Your task to perform on an android device: Search for "razer blackwidow" on target.com, select the first entry, add it to the cart, then select checkout. Image 0: 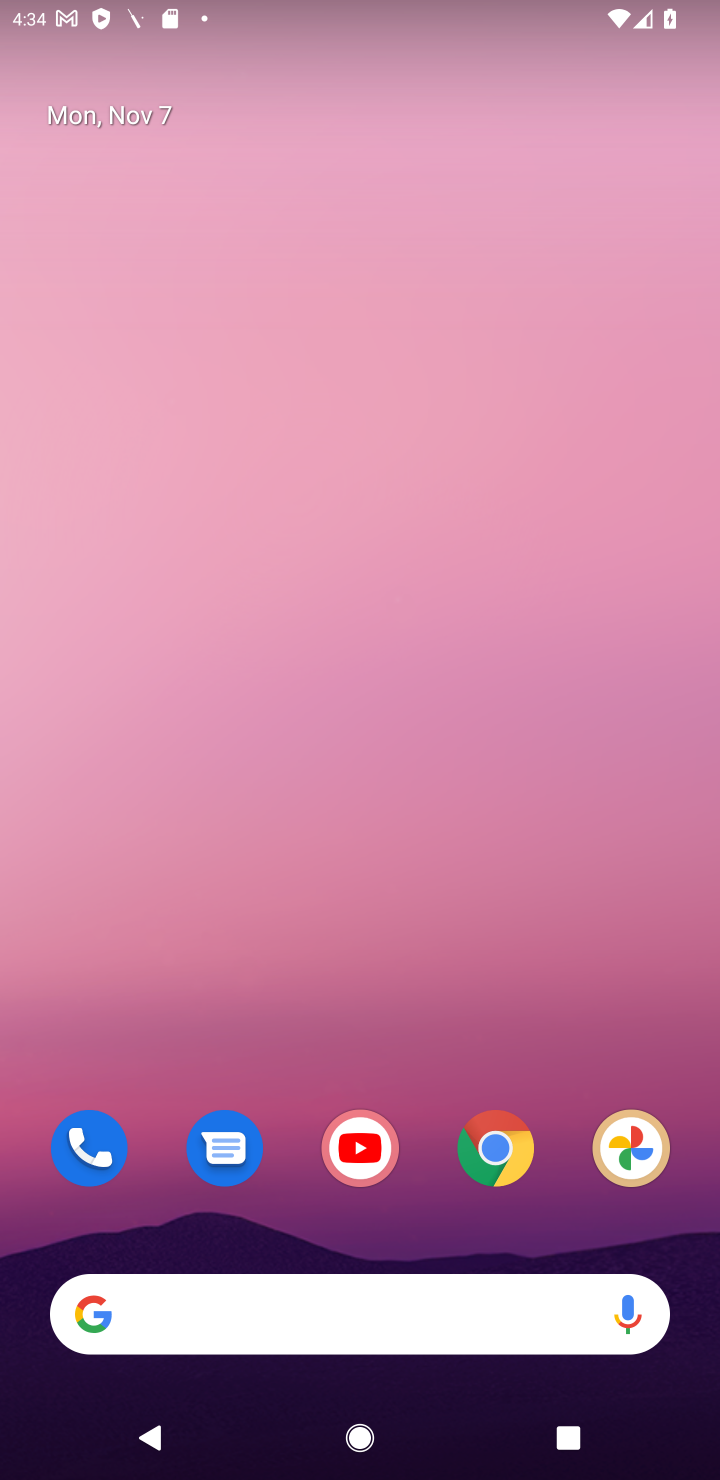
Step 0: click (492, 1140)
Your task to perform on an android device: Search for "razer blackwidow" on target.com, select the first entry, add it to the cart, then select checkout. Image 1: 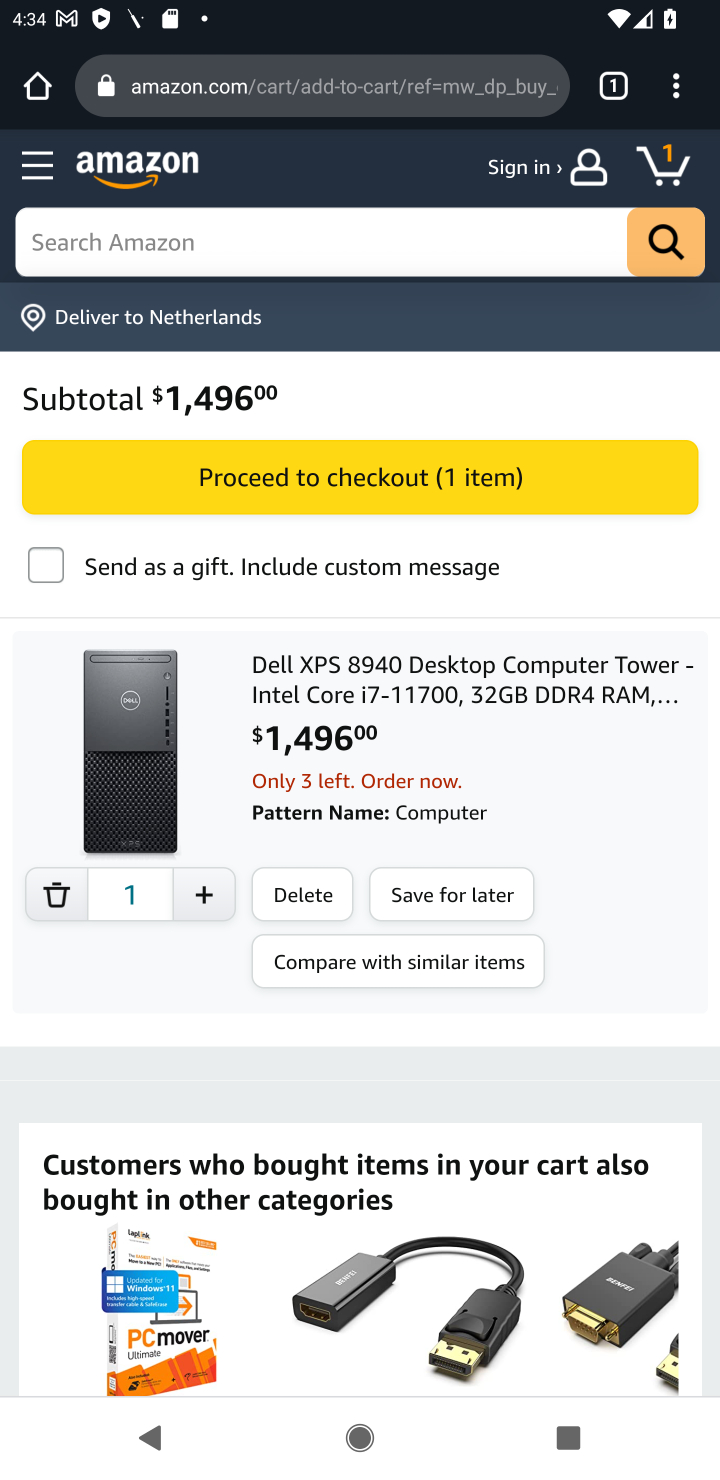
Step 1: click (345, 54)
Your task to perform on an android device: Search for "razer blackwidow" on target.com, select the first entry, add it to the cart, then select checkout. Image 2: 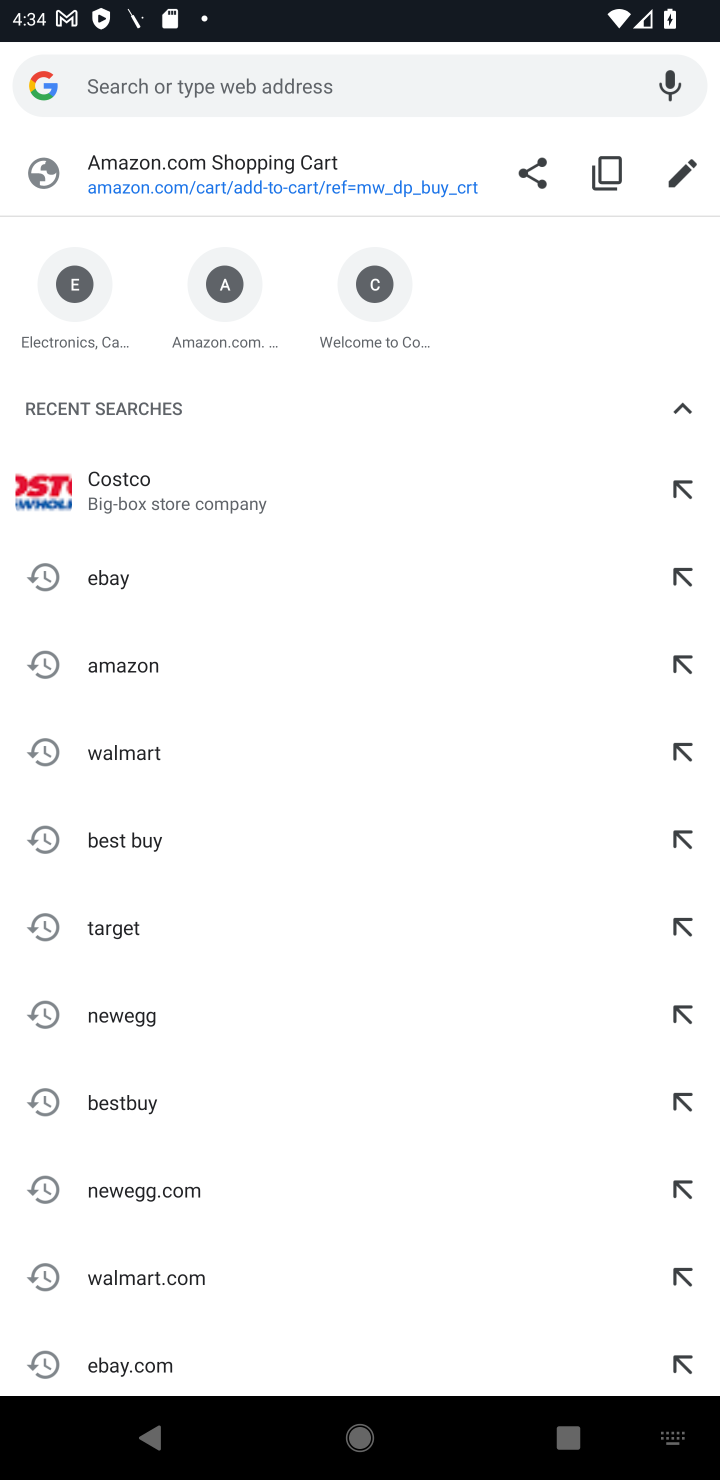
Step 2: type "target.com"
Your task to perform on an android device: Search for "razer blackwidow" on target.com, select the first entry, add it to the cart, then select checkout. Image 3: 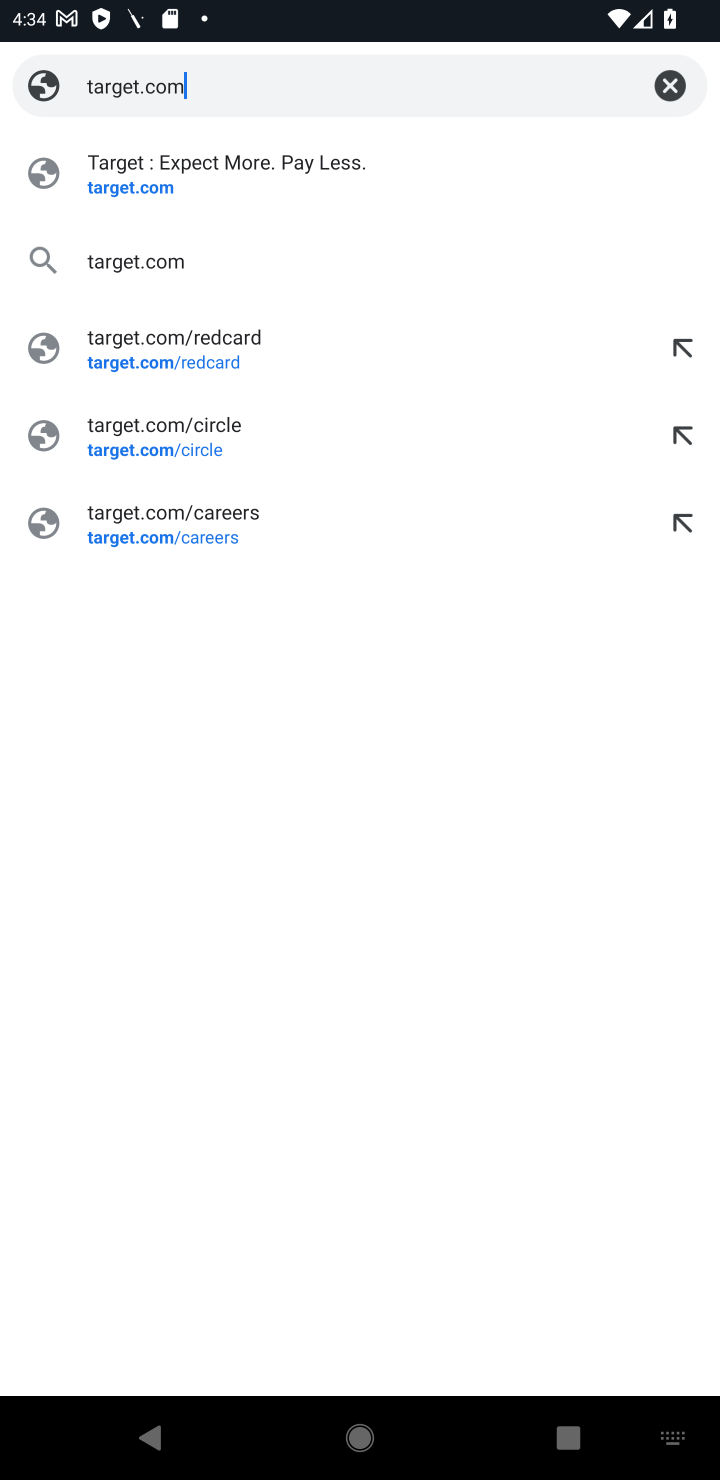
Step 3: click (119, 162)
Your task to perform on an android device: Search for "razer blackwidow" on target.com, select the first entry, add it to the cart, then select checkout. Image 4: 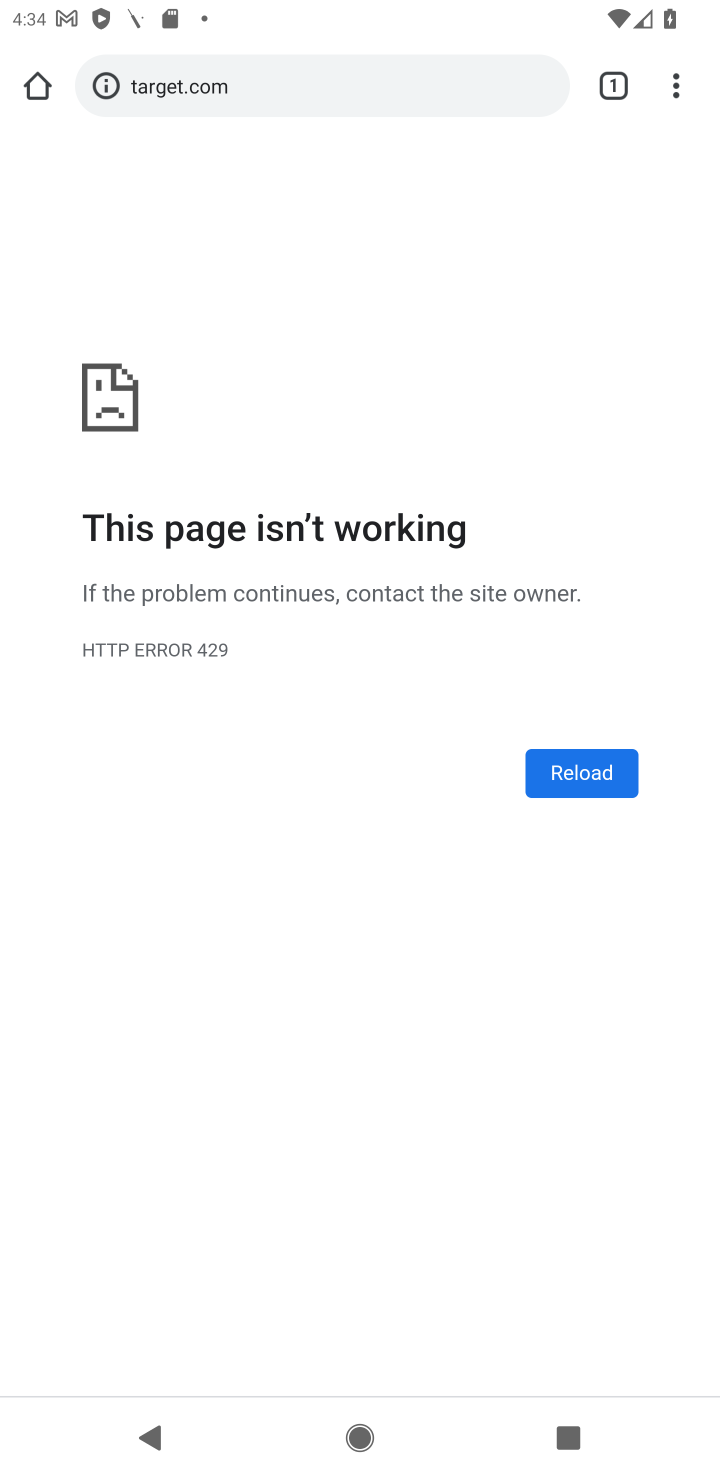
Step 4: press back button
Your task to perform on an android device: Search for "razer blackwidow" on target.com, select the first entry, add it to the cart, then select checkout. Image 5: 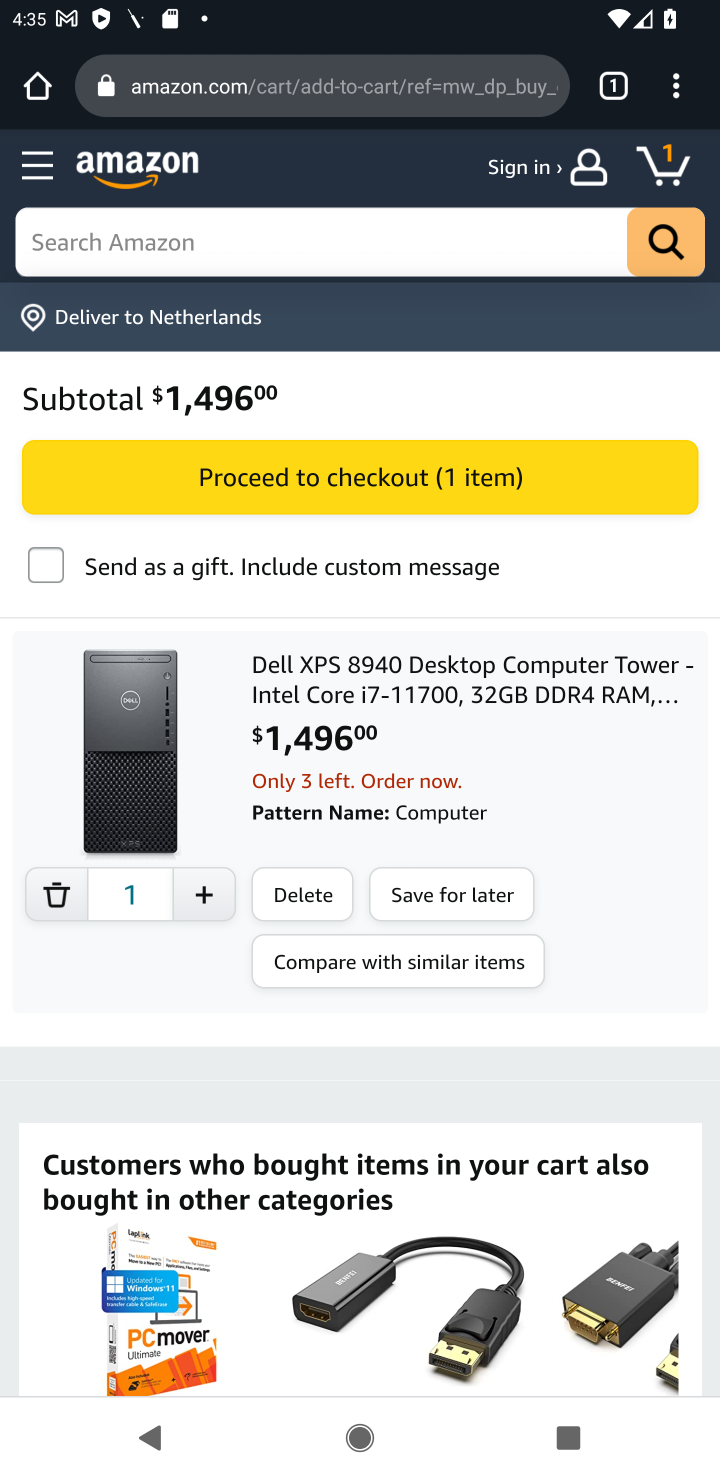
Step 5: click (369, 52)
Your task to perform on an android device: Search for "razer blackwidow" on target.com, select the first entry, add it to the cart, then select checkout. Image 6: 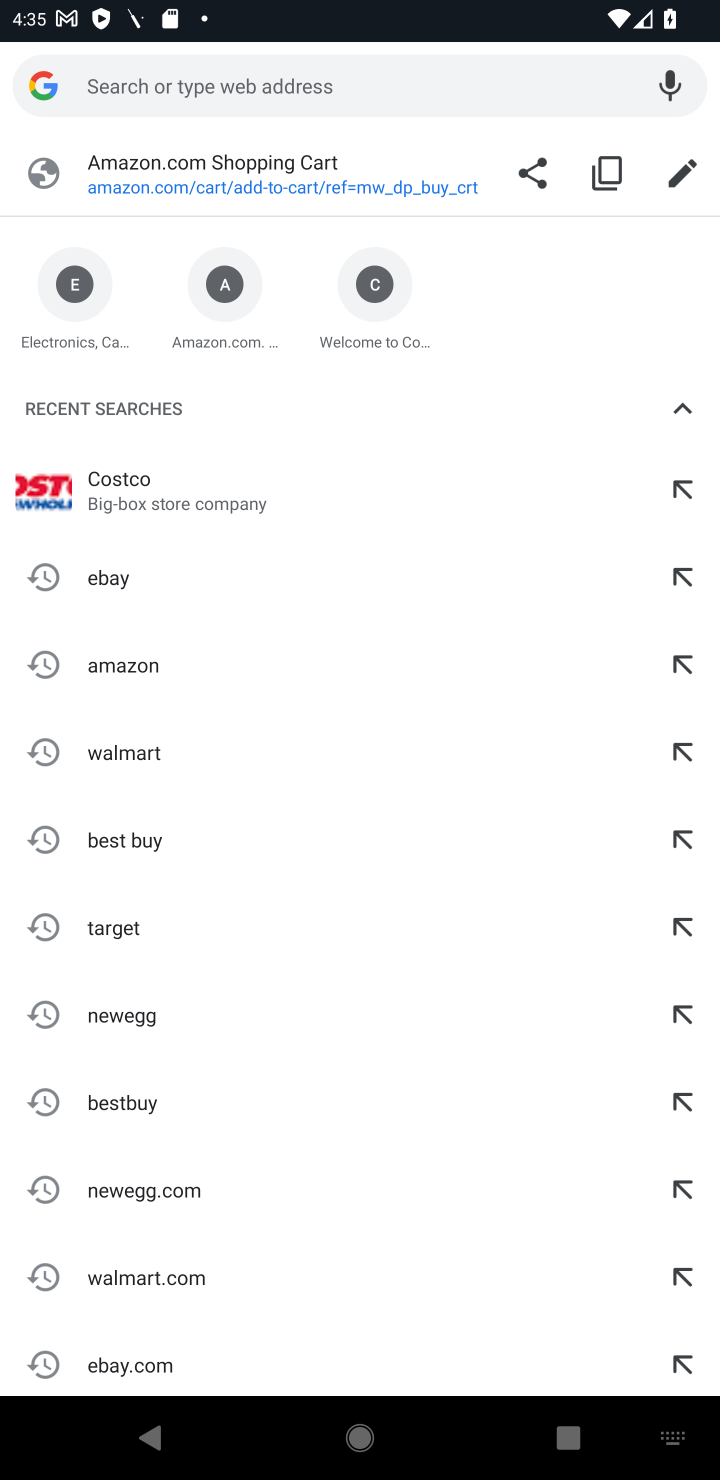
Step 6: click (100, 921)
Your task to perform on an android device: Search for "razer blackwidow" on target.com, select the first entry, add it to the cart, then select checkout. Image 7: 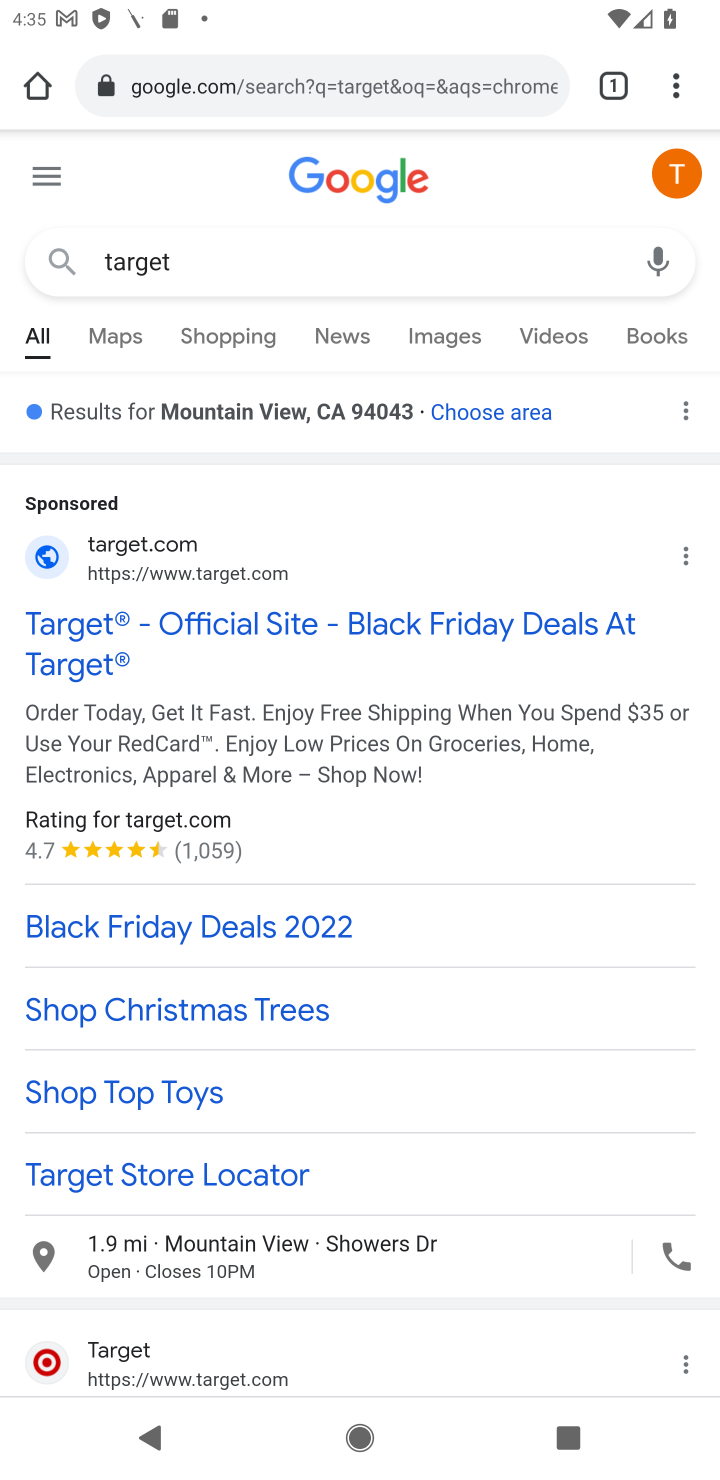
Step 7: drag from (344, 1290) to (454, 292)
Your task to perform on an android device: Search for "razer blackwidow" on target.com, select the first entry, add it to the cart, then select checkout. Image 8: 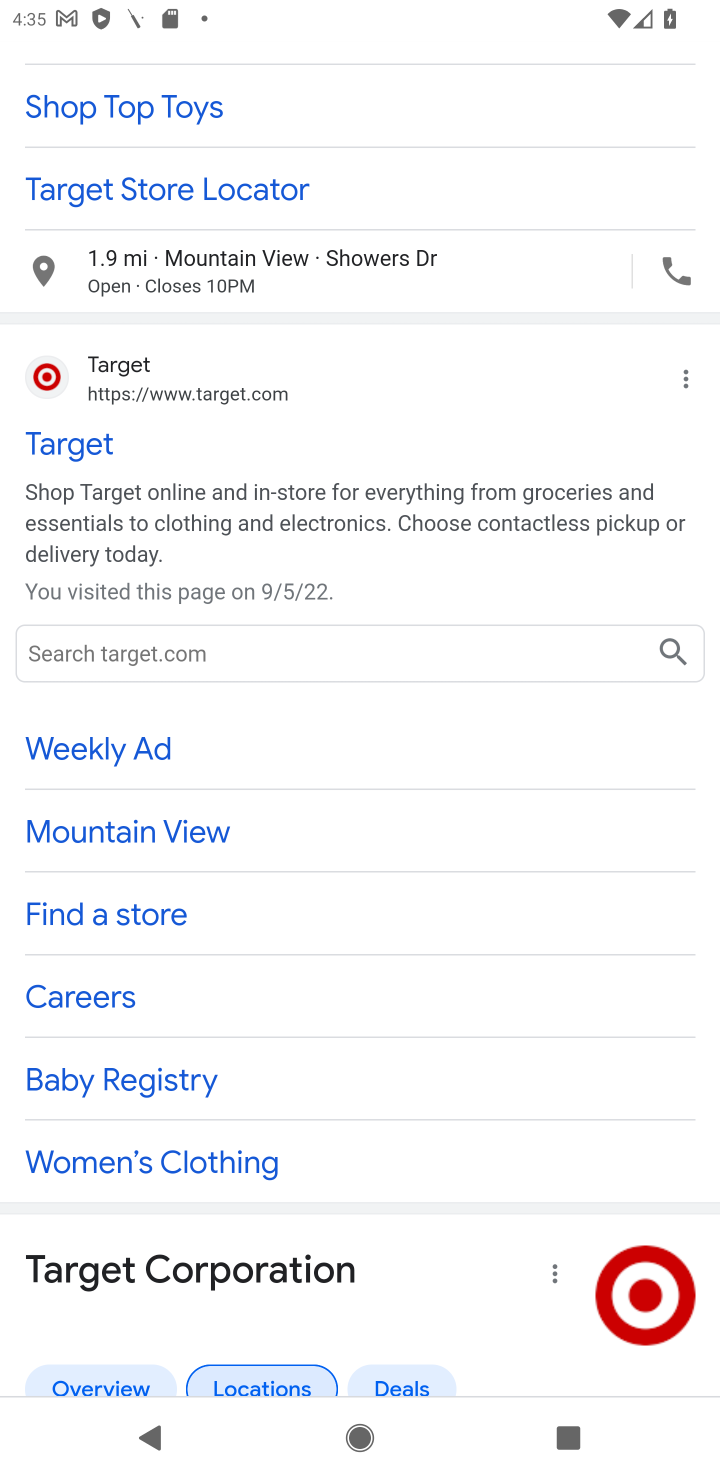
Step 8: click (62, 436)
Your task to perform on an android device: Search for "razer blackwidow" on target.com, select the first entry, add it to the cart, then select checkout. Image 9: 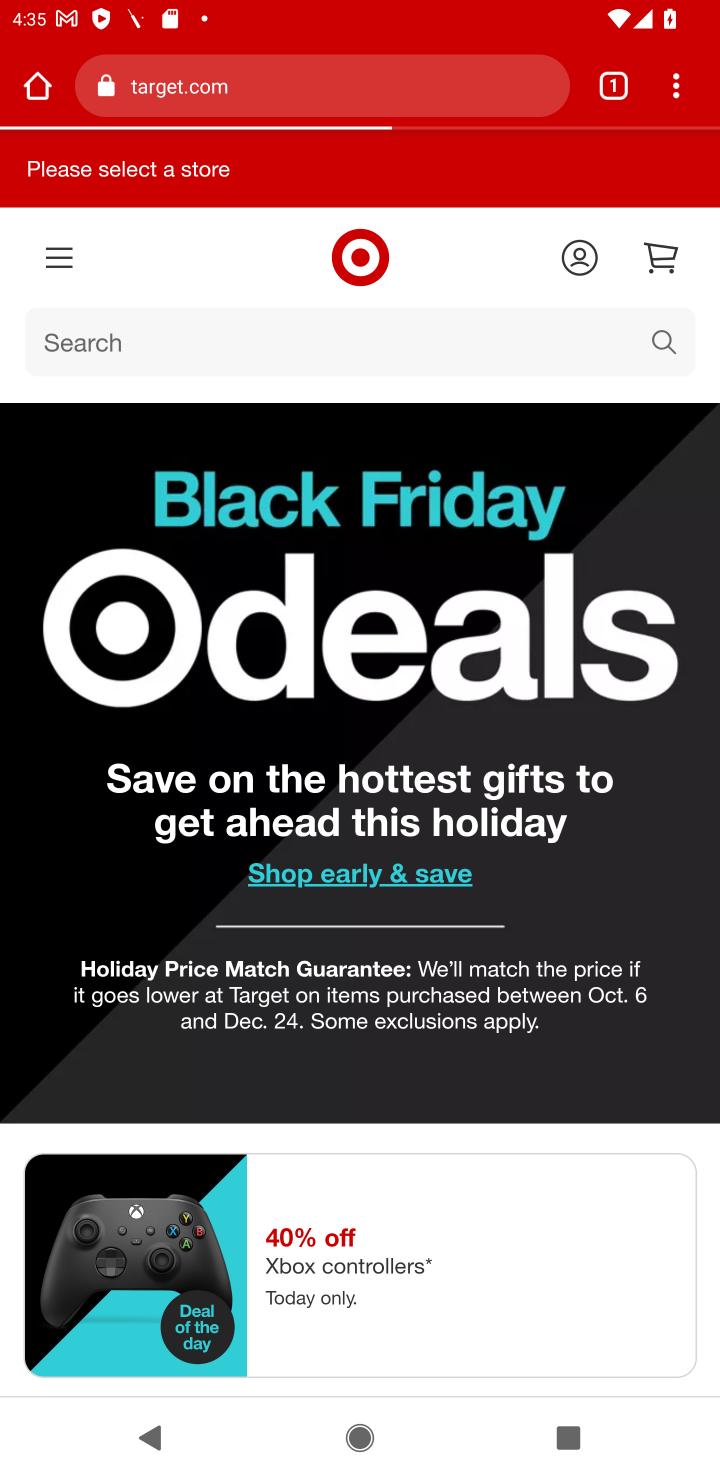
Step 9: drag from (556, 1196) to (403, 169)
Your task to perform on an android device: Search for "razer blackwidow" on target.com, select the first entry, add it to the cart, then select checkout. Image 10: 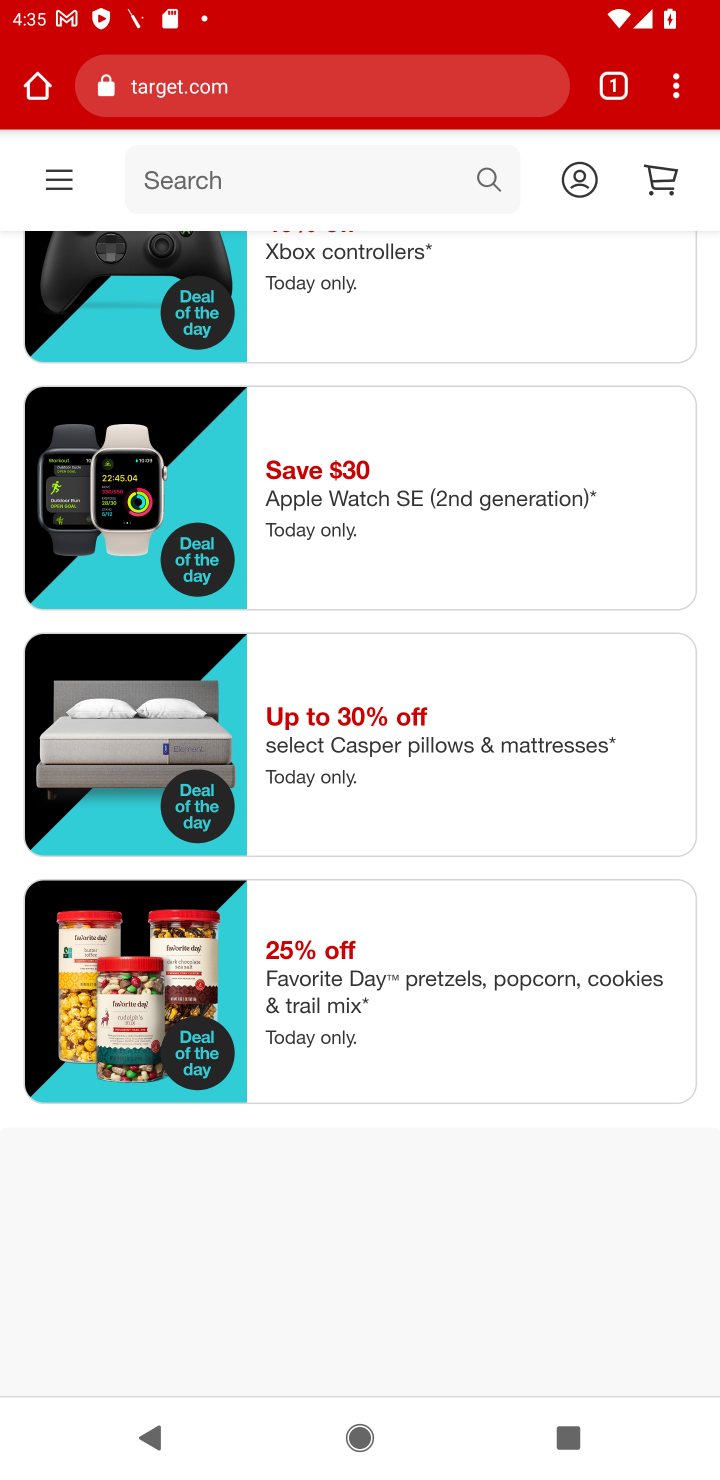
Step 10: drag from (446, 333) to (338, 1071)
Your task to perform on an android device: Search for "razer blackwidow" on target.com, select the first entry, add it to the cart, then select checkout. Image 11: 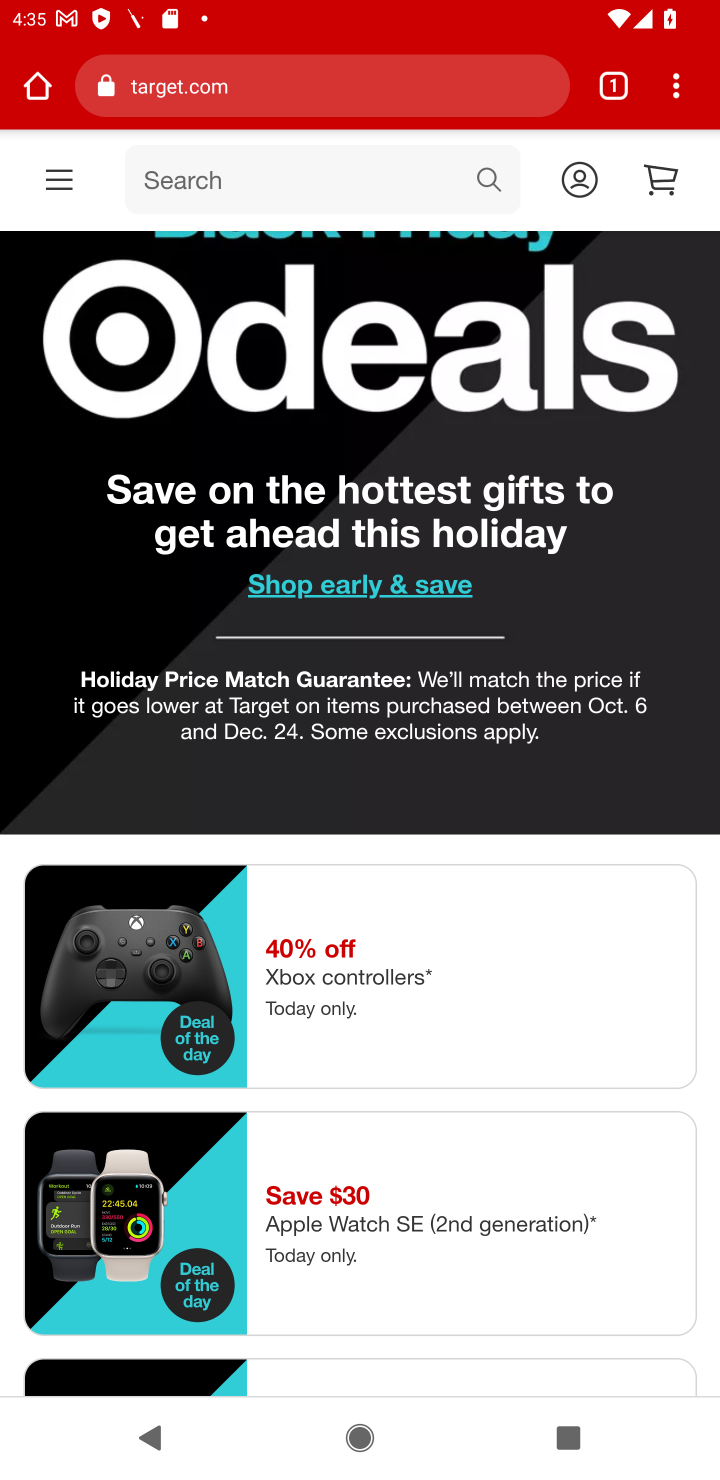
Step 11: click (214, 169)
Your task to perform on an android device: Search for "razer blackwidow" on target.com, select the first entry, add it to the cart, then select checkout. Image 12: 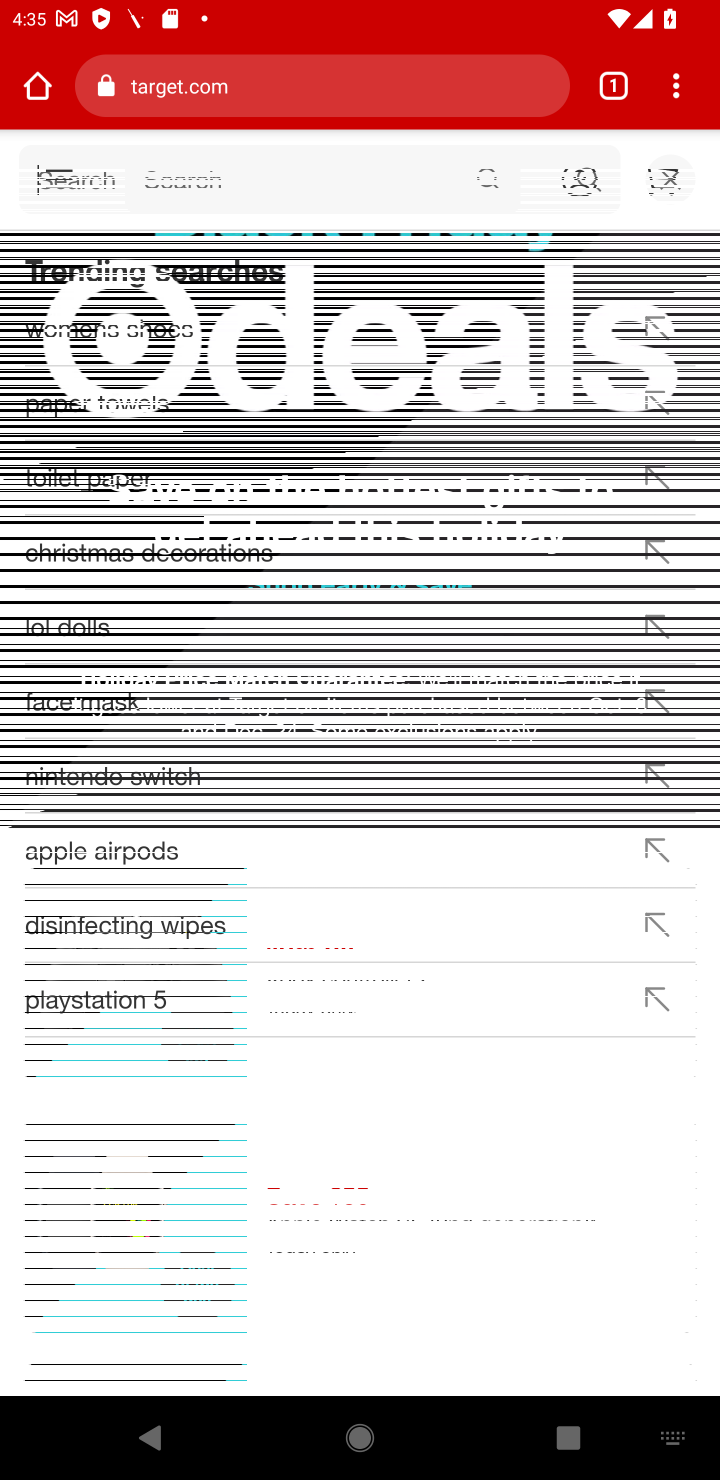
Step 12: type "razer blackwidow"
Your task to perform on an android device: Search for "razer blackwidow" on target.com, select the first entry, add it to the cart, then select checkout. Image 13: 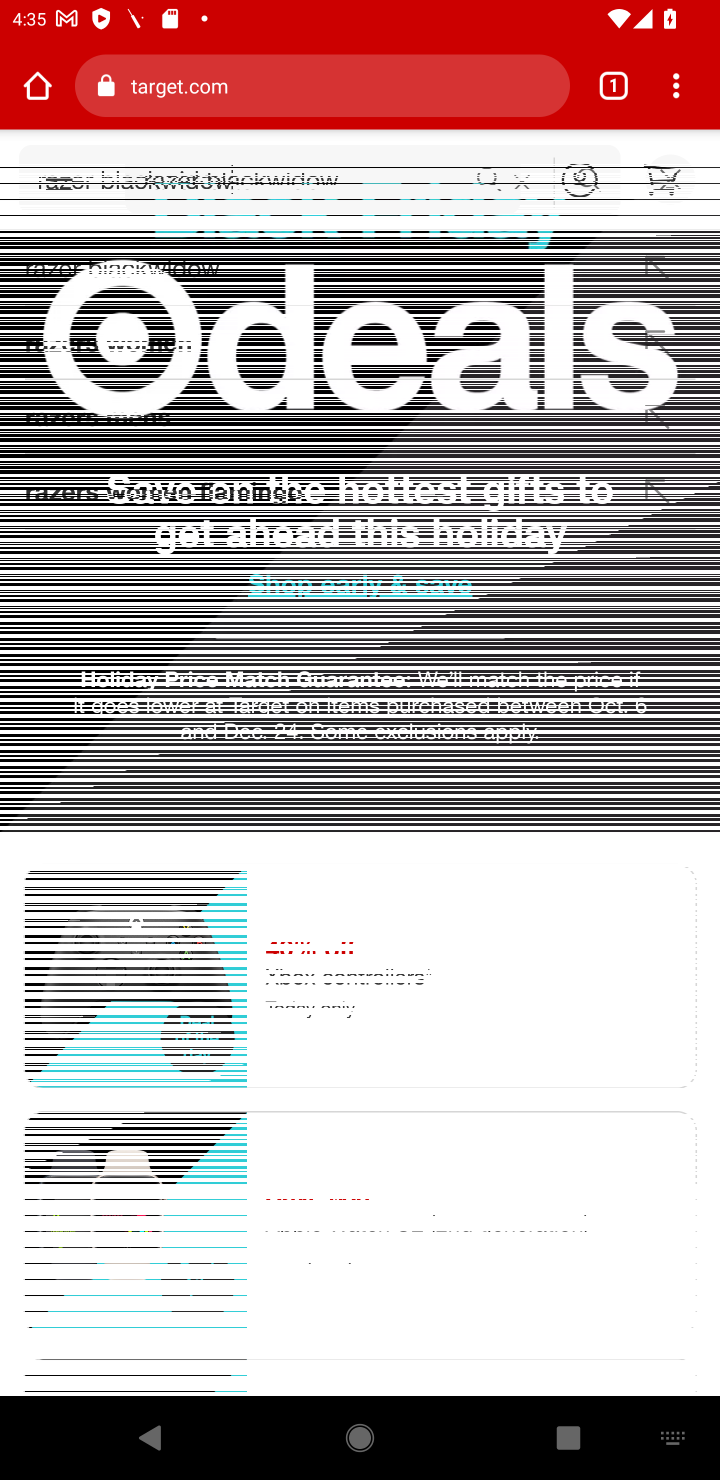
Step 13: click (208, 265)
Your task to perform on an android device: Search for "razer blackwidow" on target.com, select the first entry, add it to the cart, then select checkout. Image 14: 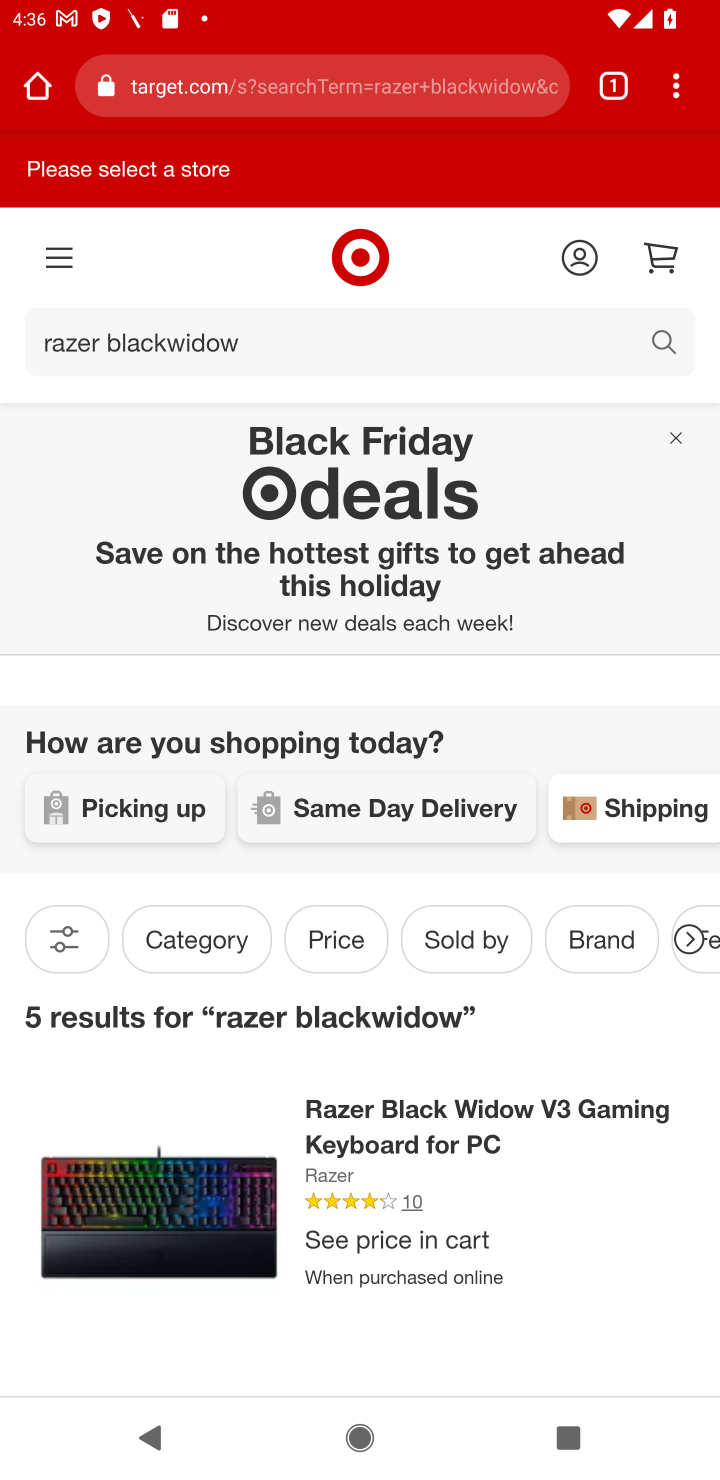
Step 14: drag from (458, 1125) to (467, 486)
Your task to perform on an android device: Search for "razer blackwidow" on target.com, select the first entry, add it to the cart, then select checkout. Image 15: 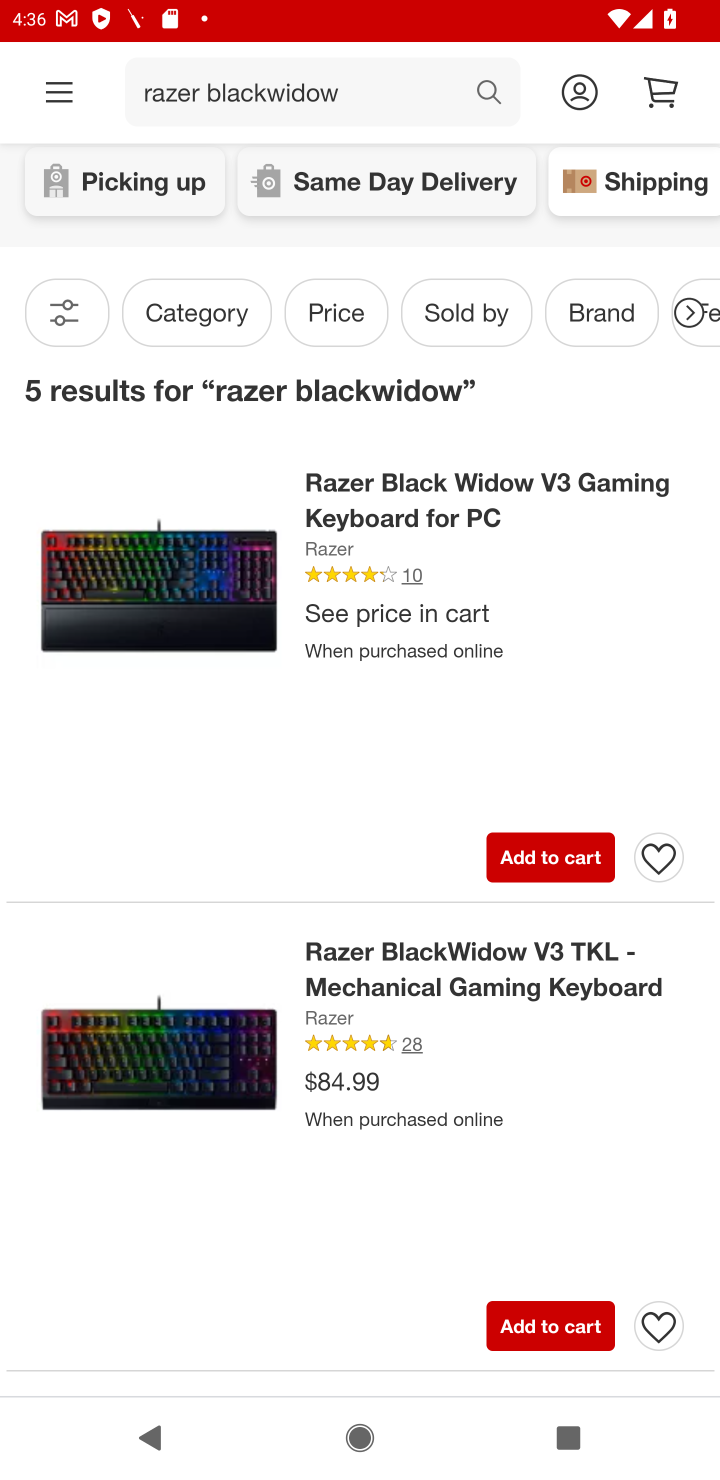
Step 15: click (544, 854)
Your task to perform on an android device: Search for "razer blackwidow" on target.com, select the first entry, add it to the cart, then select checkout. Image 16: 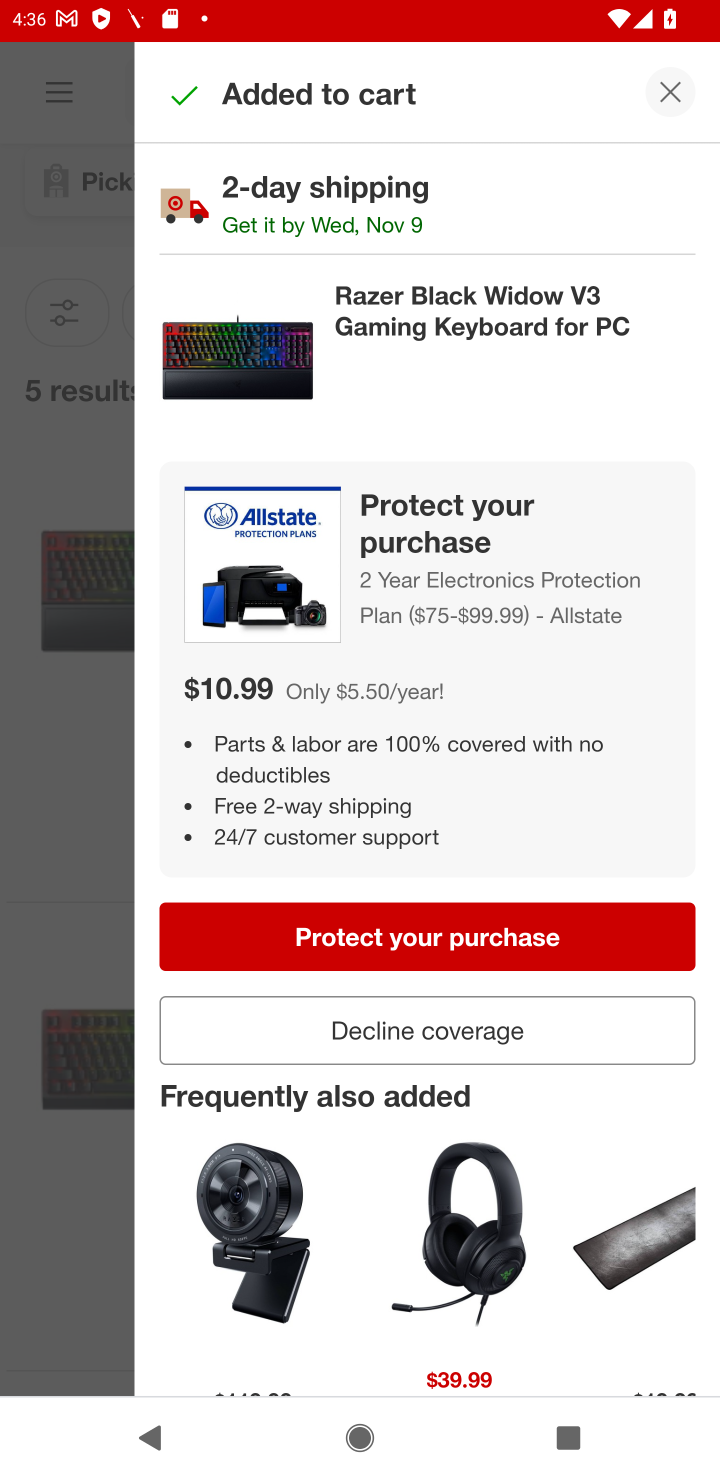
Step 16: click (669, 88)
Your task to perform on an android device: Search for "razer blackwidow" on target.com, select the first entry, add it to the cart, then select checkout. Image 17: 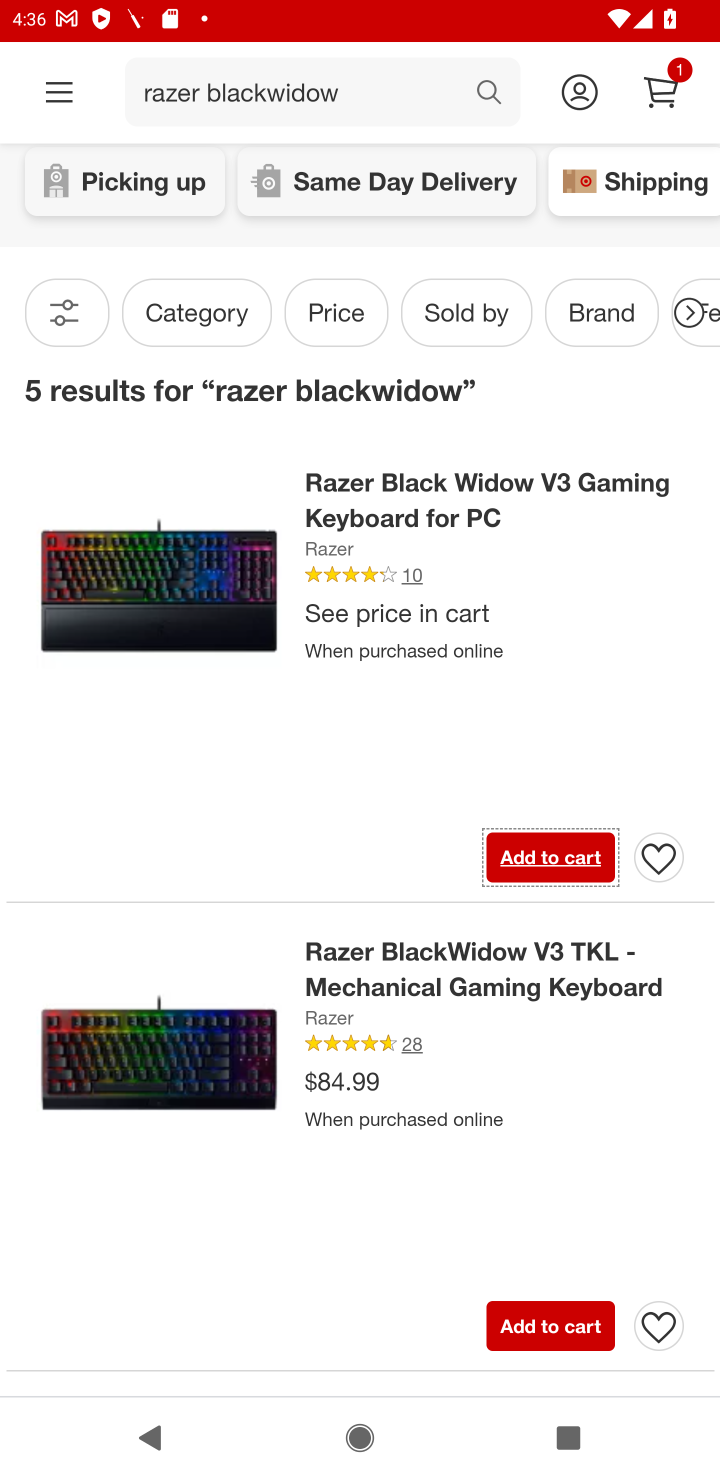
Step 17: click (656, 85)
Your task to perform on an android device: Search for "razer blackwidow" on target.com, select the first entry, add it to the cart, then select checkout. Image 18: 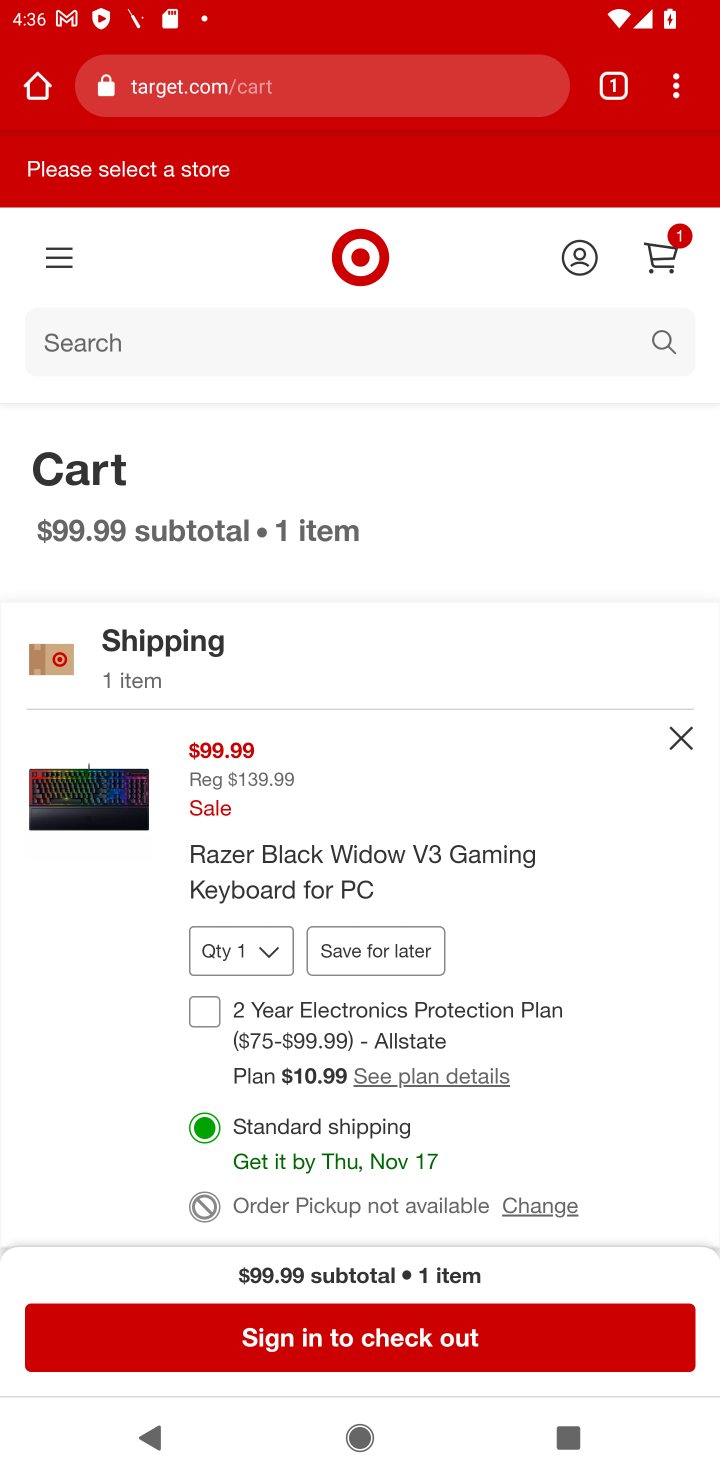
Step 18: click (388, 1343)
Your task to perform on an android device: Search for "razer blackwidow" on target.com, select the first entry, add it to the cart, then select checkout. Image 19: 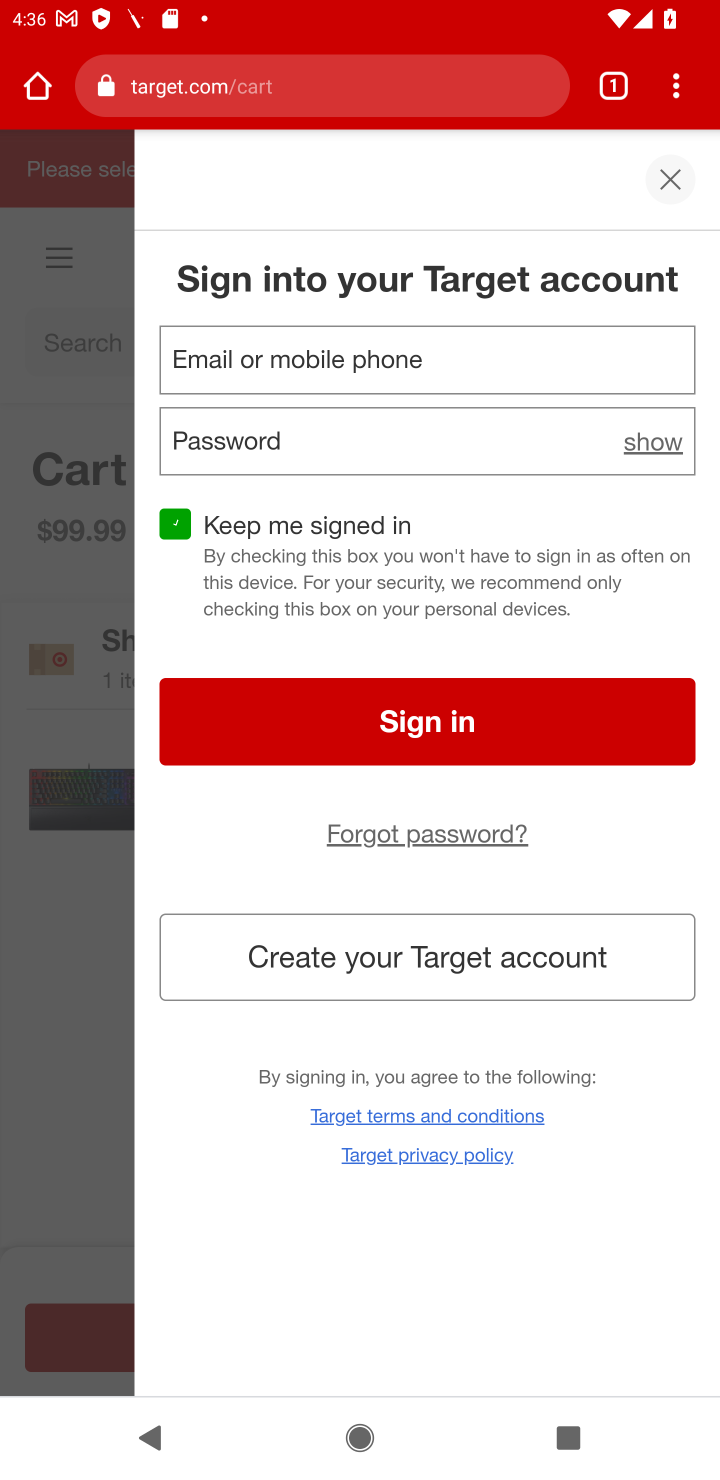
Step 19: task complete